Your task to perform on an android device: install app "Truecaller" Image 0: 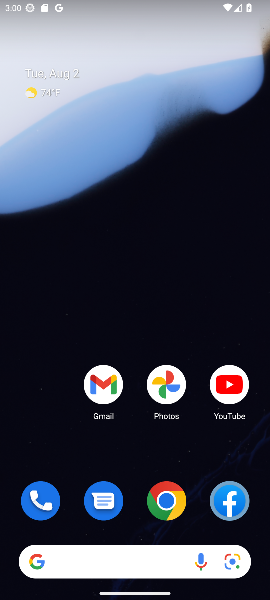
Step 0: drag from (138, 472) to (157, 3)
Your task to perform on an android device: install app "Truecaller" Image 1: 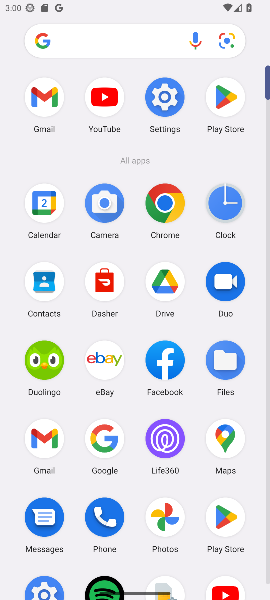
Step 1: click (223, 101)
Your task to perform on an android device: install app "Truecaller" Image 2: 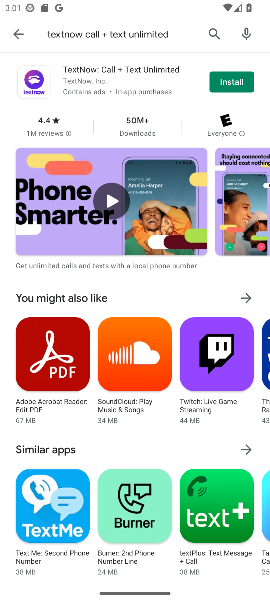
Step 2: click (213, 34)
Your task to perform on an android device: install app "Truecaller" Image 3: 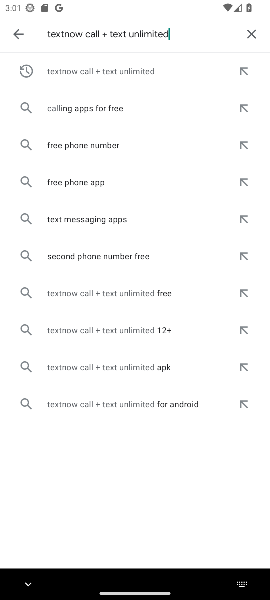
Step 3: click (251, 34)
Your task to perform on an android device: install app "Truecaller" Image 4: 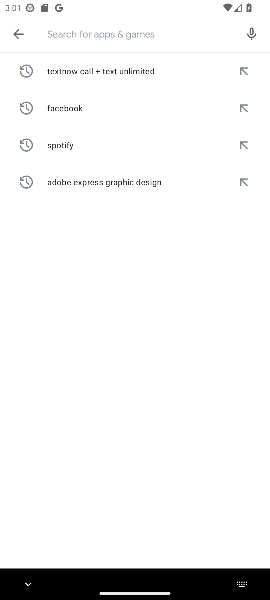
Step 4: type "Truecaller"
Your task to perform on an android device: install app "Truecaller" Image 5: 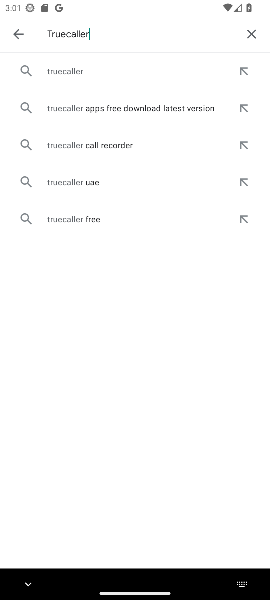
Step 5: click (53, 75)
Your task to perform on an android device: install app "Truecaller" Image 6: 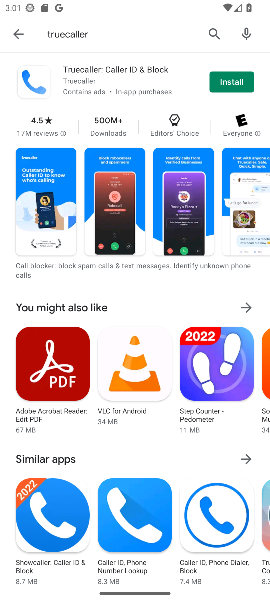
Step 6: click (220, 86)
Your task to perform on an android device: install app "Truecaller" Image 7: 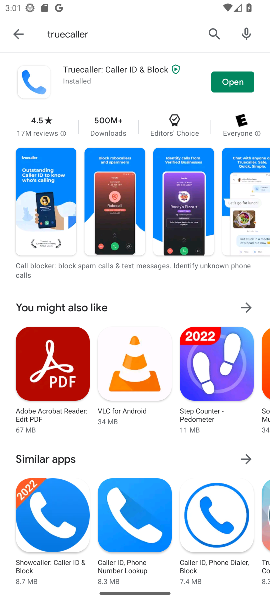
Step 7: task complete